Your task to perform on an android device: turn on priority inbox in the gmail app Image 0: 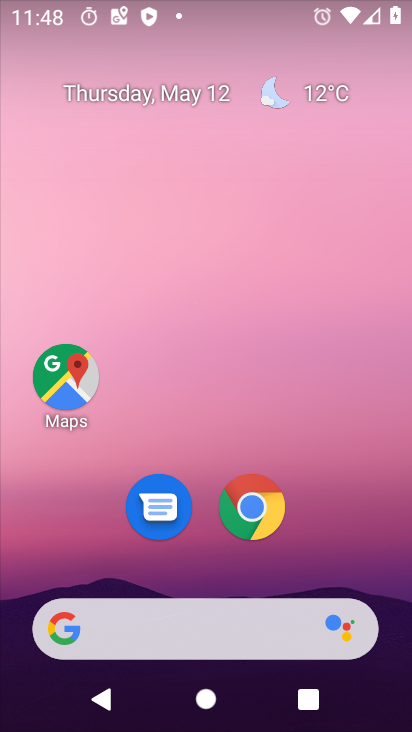
Step 0: click (269, 491)
Your task to perform on an android device: turn on priority inbox in the gmail app Image 1: 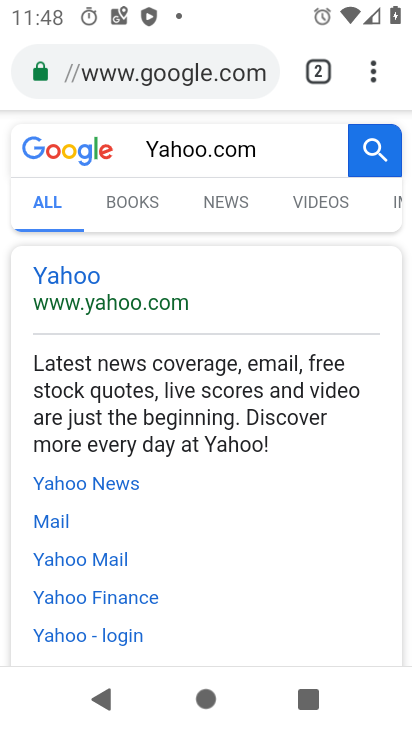
Step 1: press home button
Your task to perform on an android device: turn on priority inbox in the gmail app Image 2: 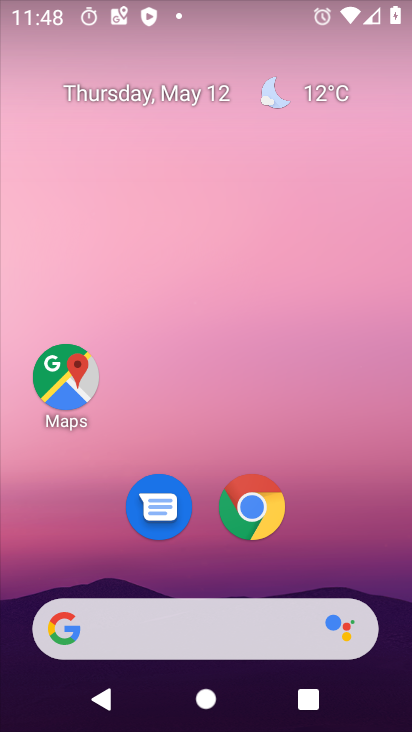
Step 2: drag from (193, 463) to (264, 92)
Your task to perform on an android device: turn on priority inbox in the gmail app Image 3: 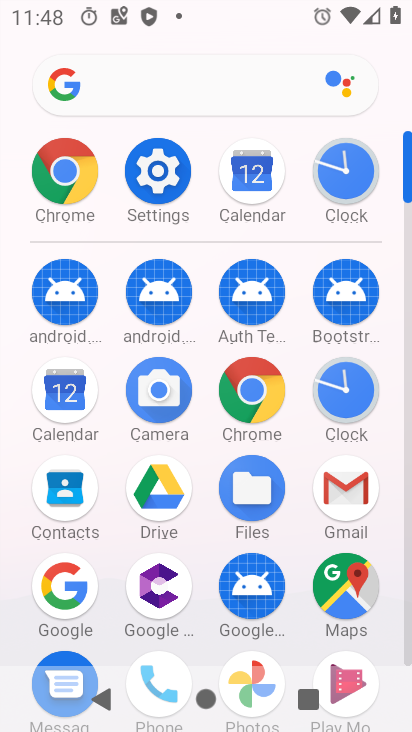
Step 3: click (354, 488)
Your task to perform on an android device: turn on priority inbox in the gmail app Image 4: 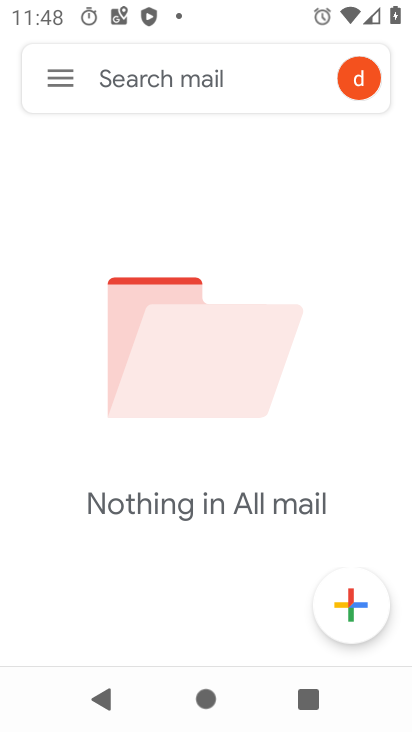
Step 4: click (54, 85)
Your task to perform on an android device: turn on priority inbox in the gmail app Image 5: 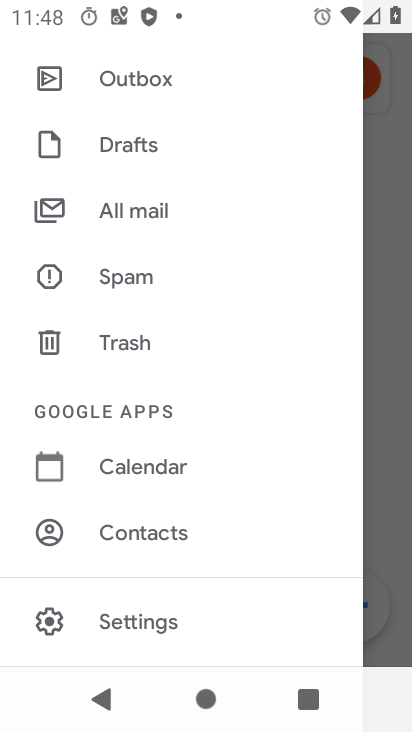
Step 5: click (122, 631)
Your task to perform on an android device: turn on priority inbox in the gmail app Image 6: 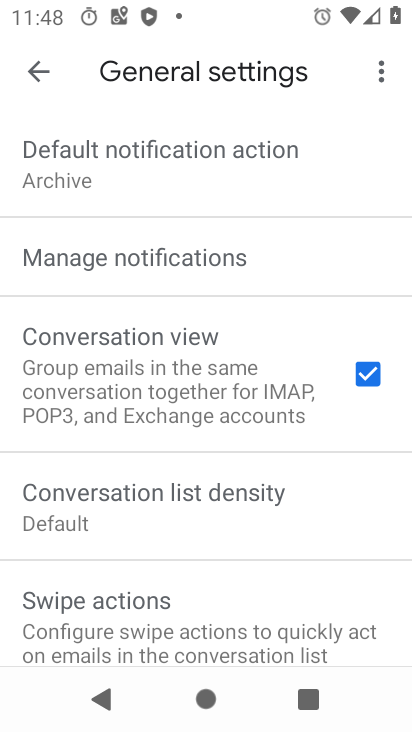
Step 6: click (35, 83)
Your task to perform on an android device: turn on priority inbox in the gmail app Image 7: 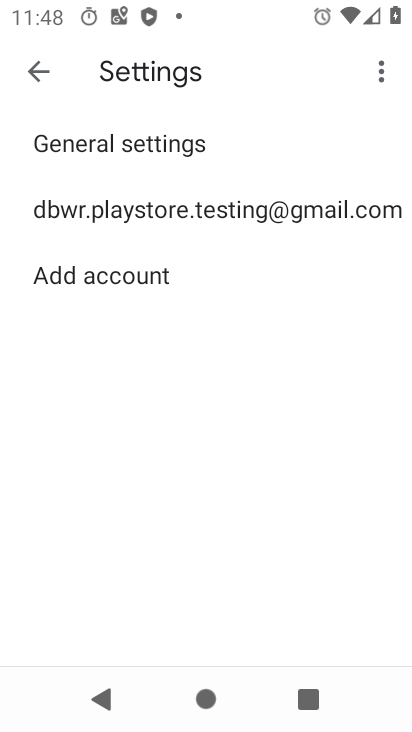
Step 7: click (159, 217)
Your task to perform on an android device: turn on priority inbox in the gmail app Image 8: 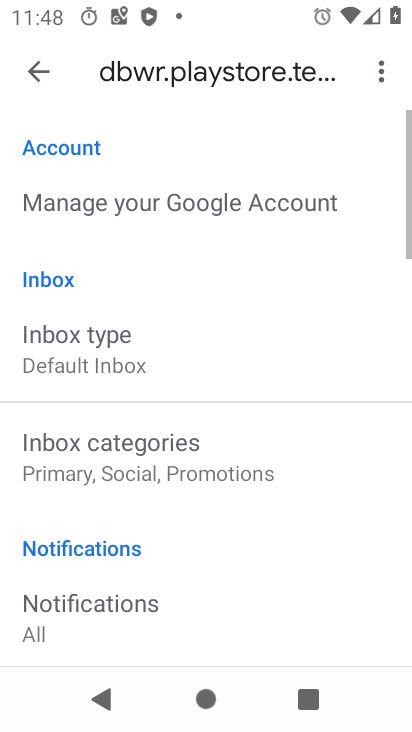
Step 8: click (133, 371)
Your task to perform on an android device: turn on priority inbox in the gmail app Image 9: 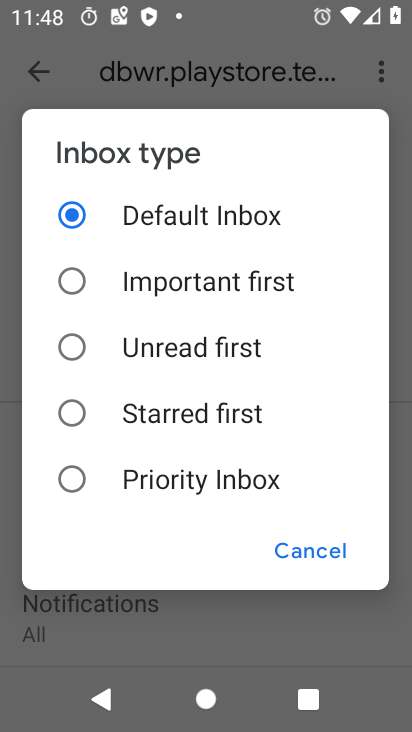
Step 9: click (101, 480)
Your task to perform on an android device: turn on priority inbox in the gmail app Image 10: 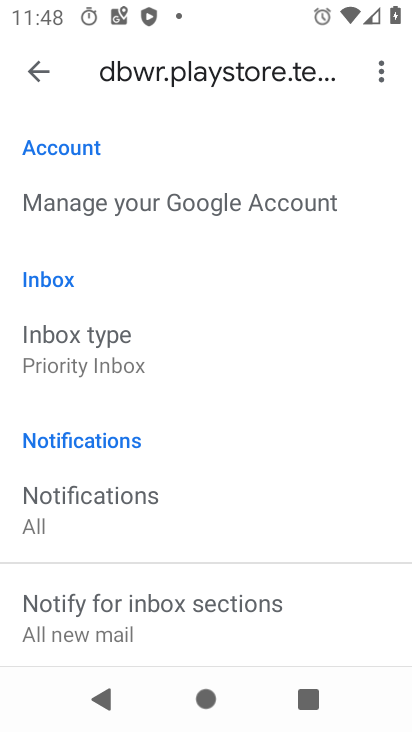
Step 10: task complete